Your task to perform on an android device: toggle data saver in the chrome app Image 0: 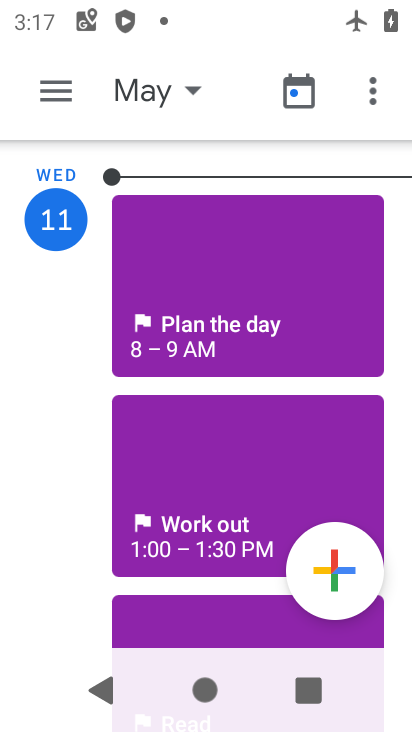
Step 0: press home button
Your task to perform on an android device: toggle data saver in the chrome app Image 1: 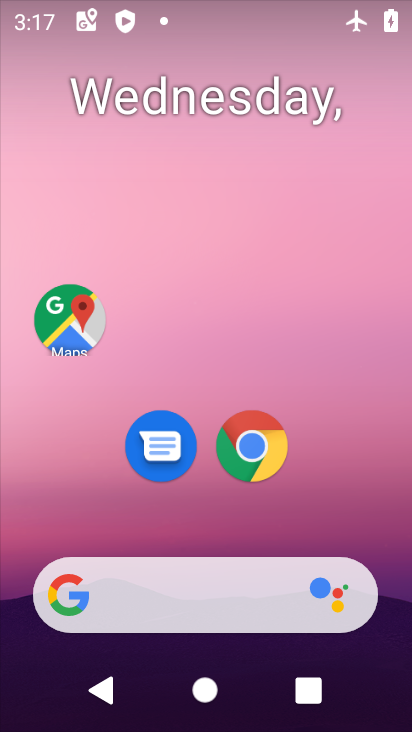
Step 1: click (257, 449)
Your task to perform on an android device: toggle data saver in the chrome app Image 2: 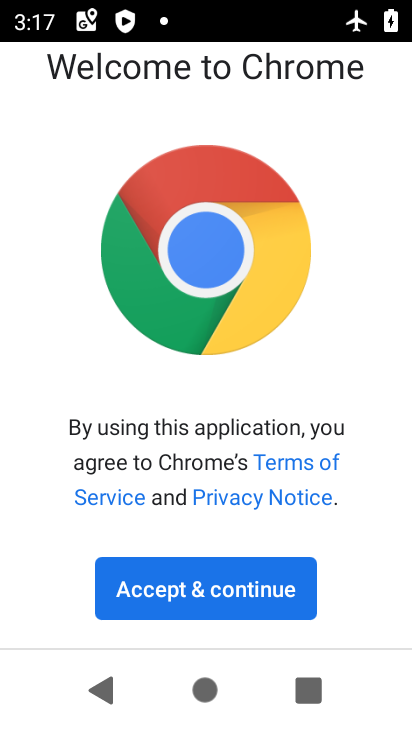
Step 2: click (250, 579)
Your task to perform on an android device: toggle data saver in the chrome app Image 3: 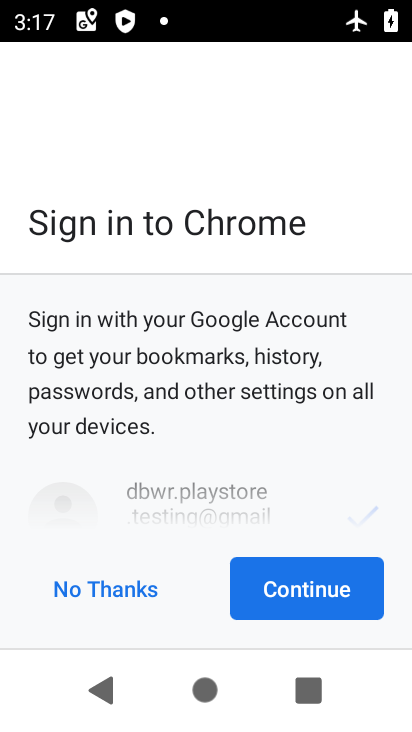
Step 3: click (280, 591)
Your task to perform on an android device: toggle data saver in the chrome app Image 4: 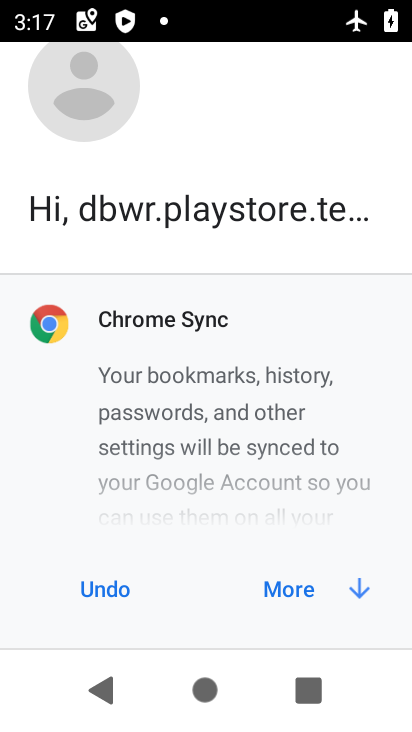
Step 4: click (280, 591)
Your task to perform on an android device: toggle data saver in the chrome app Image 5: 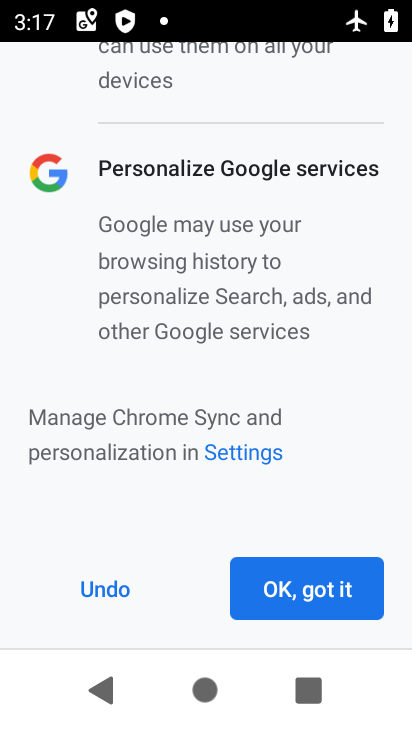
Step 5: click (280, 591)
Your task to perform on an android device: toggle data saver in the chrome app Image 6: 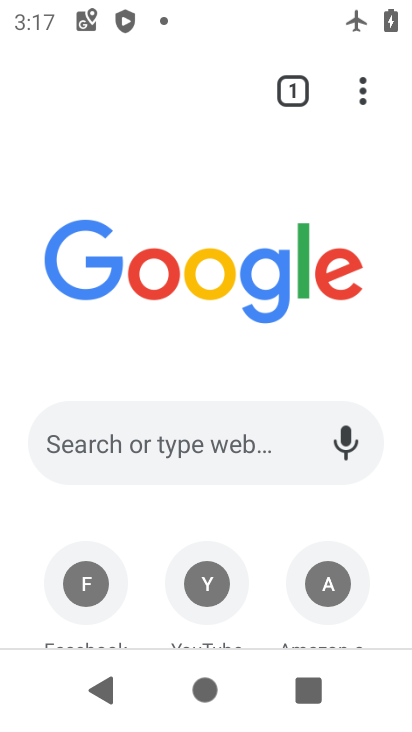
Step 6: click (354, 100)
Your task to perform on an android device: toggle data saver in the chrome app Image 7: 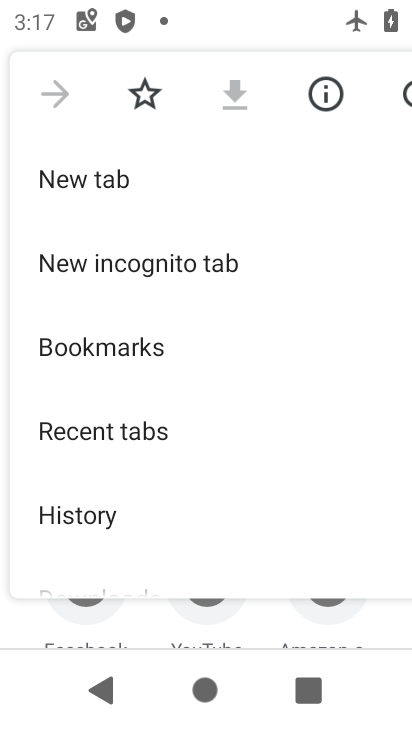
Step 7: drag from (151, 491) to (161, 105)
Your task to perform on an android device: toggle data saver in the chrome app Image 8: 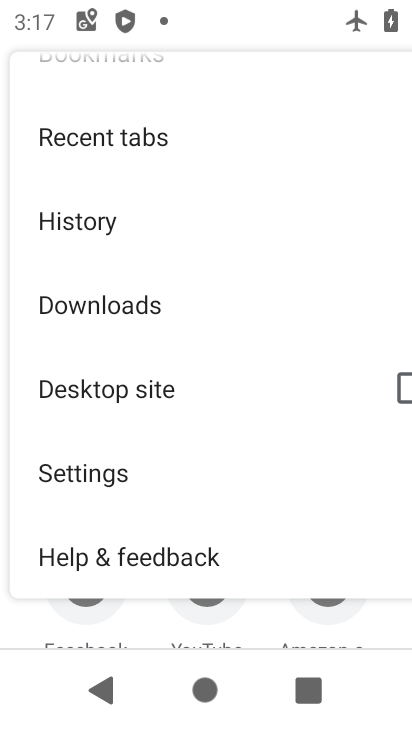
Step 8: click (141, 473)
Your task to perform on an android device: toggle data saver in the chrome app Image 9: 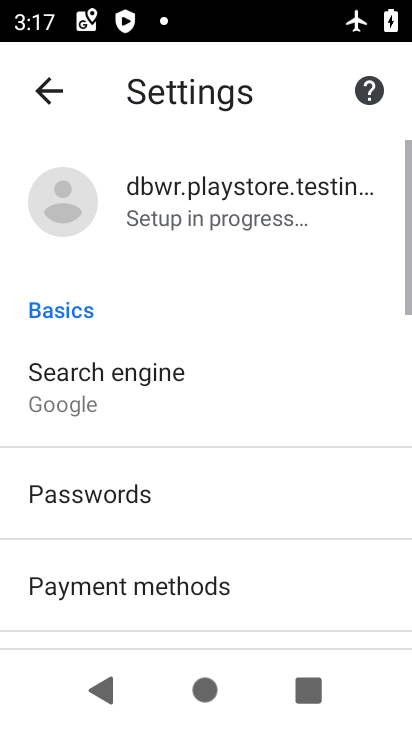
Step 9: drag from (190, 539) to (225, 16)
Your task to perform on an android device: toggle data saver in the chrome app Image 10: 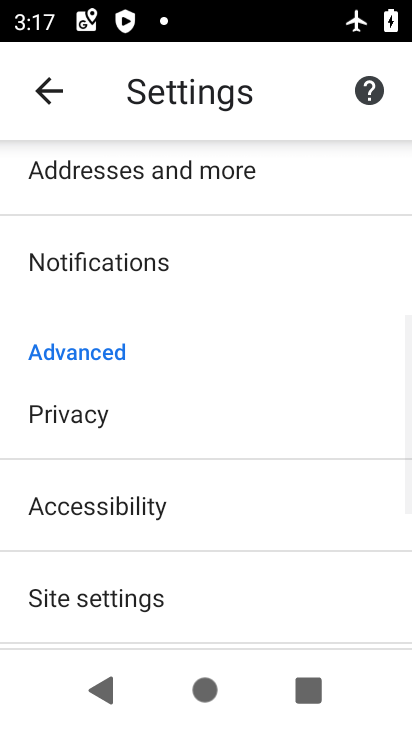
Step 10: drag from (148, 606) to (160, 263)
Your task to perform on an android device: toggle data saver in the chrome app Image 11: 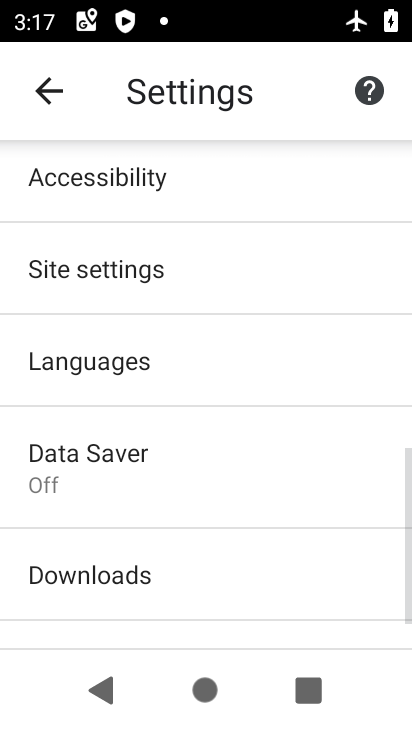
Step 11: click (157, 503)
Your task to perform on an android device: toggle data saver in the chrome app Image 12: 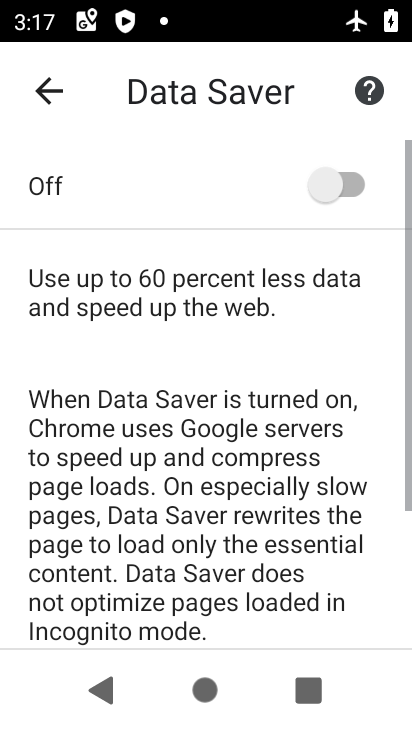
Step 12: click (333, 171)
Your task to perform on an android device: toggle data saver in the chrome app Image 13: 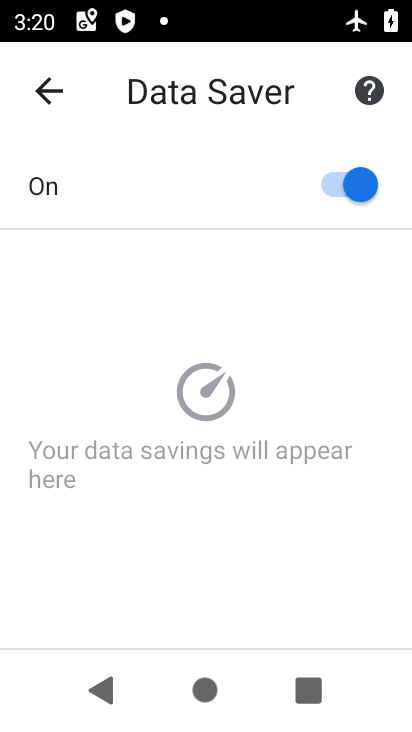
Step 13: task complete